Your task to perform on an android device: toggle location history Image 0: 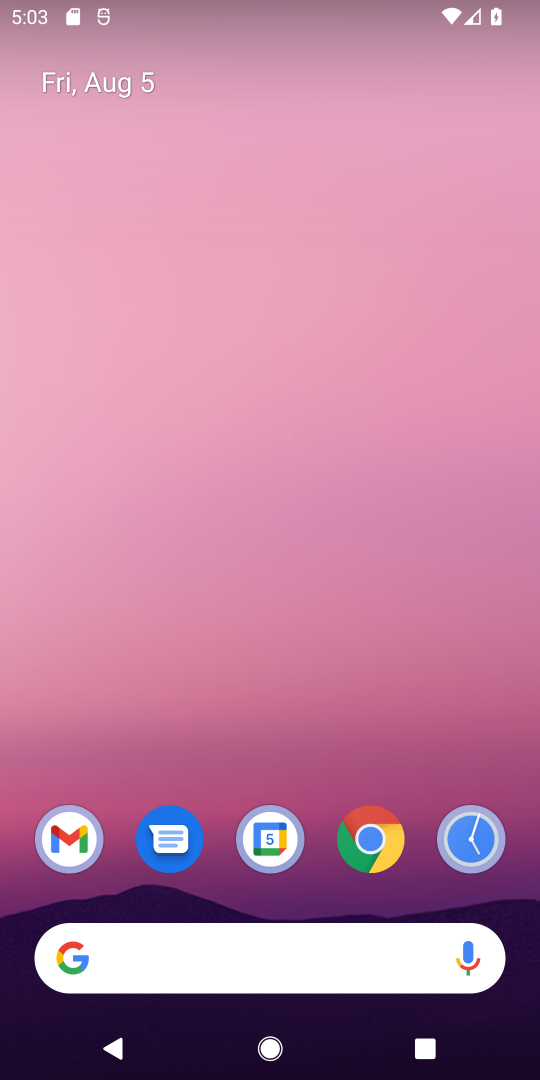
Step 0: drag from (298, 764) to (302, 180)
Your task to perform on an android device: toggle location history Image 1: 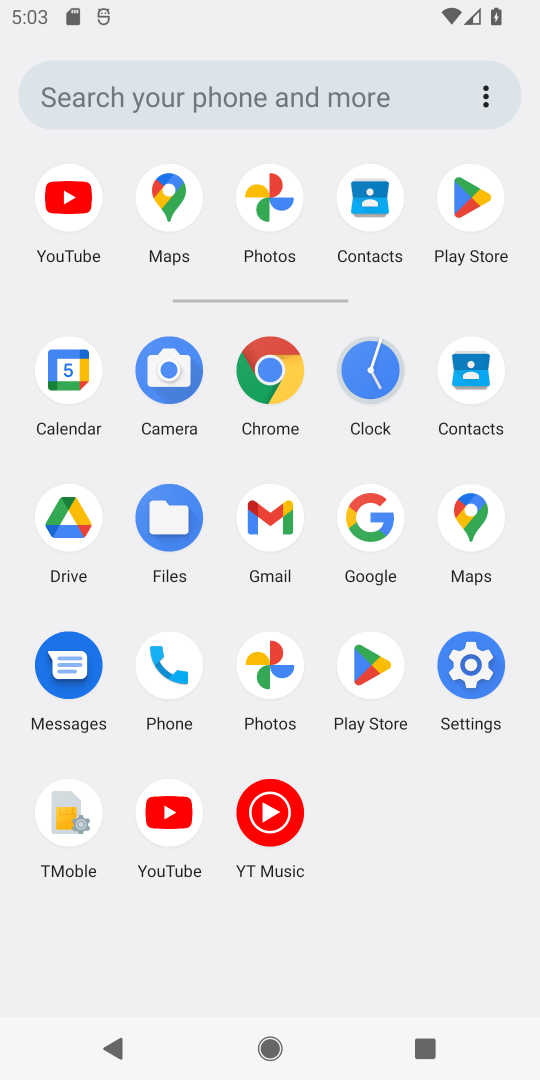
Step 1: click (451, 678)
Your task to perform on an android device: toggle location history Image 2: 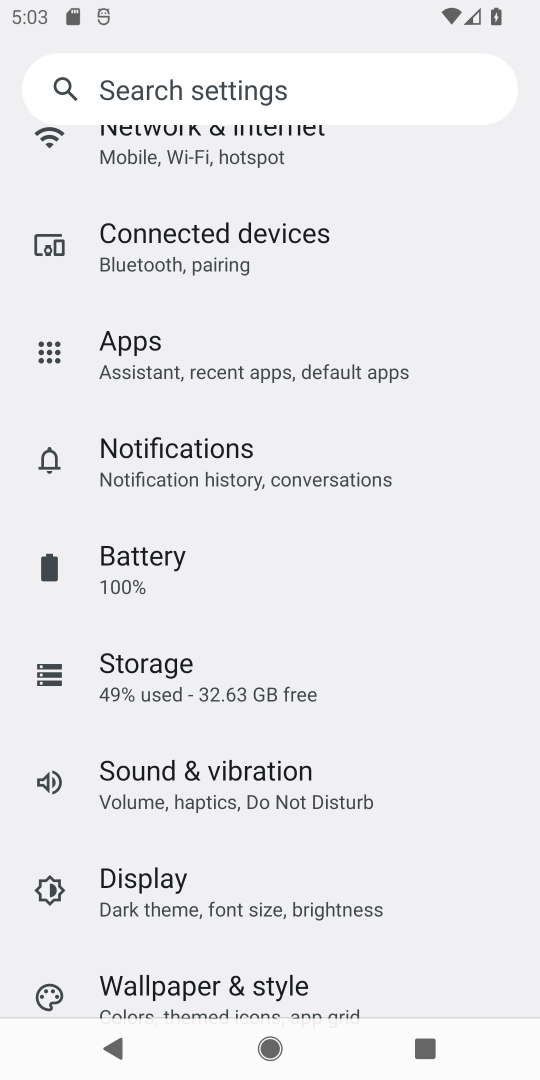
Step 2: drag from (219, 840) to (187, 254)
Your task to perform on an android device: toggle location history Image 3: 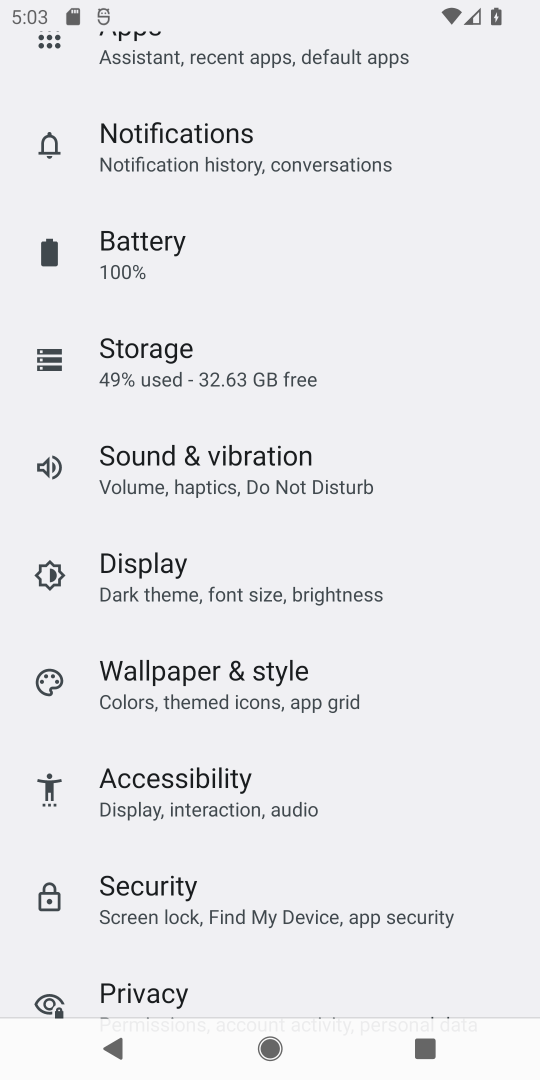
Step 3: drag from (265, 918) to (268, 318)
Your task to perform on an android device: toggle location history Image 4: 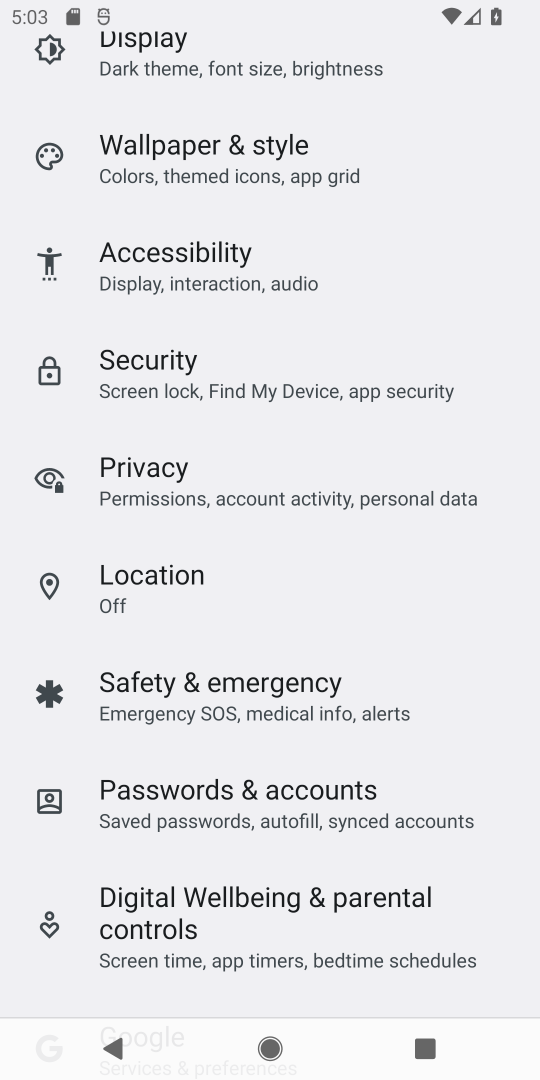
Step 4: click (149, 623)
Your task to perform on an android device: toggle location history Image 5: 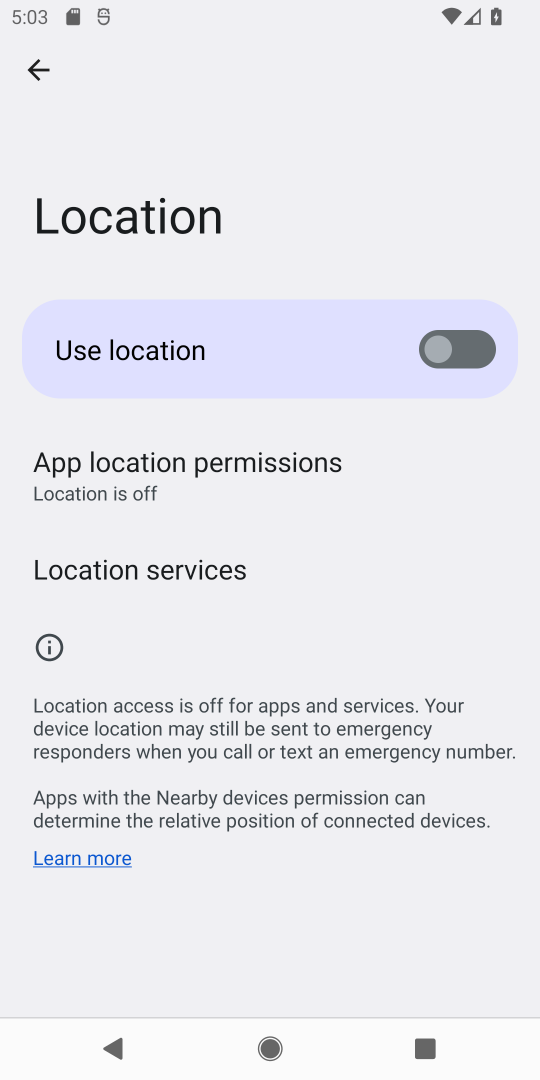
Step 5: drag from (244, 894) to (206, 153)
Your task to perform on an android device: toggle location history Image 6: 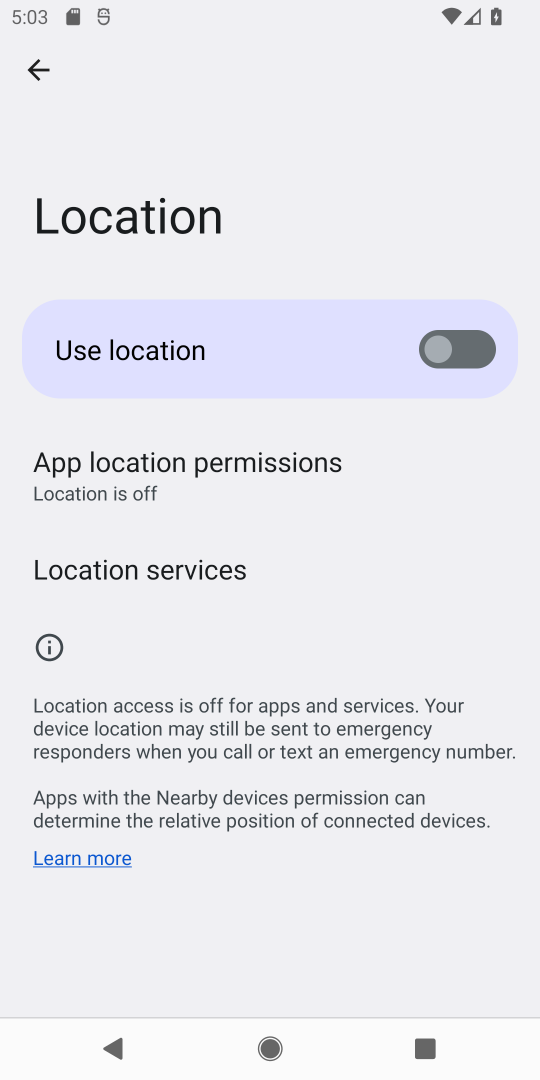
Step 6: drag from (247, 922) to (249, 282)
Your task to perform on an android device: toggle location history Image 7: 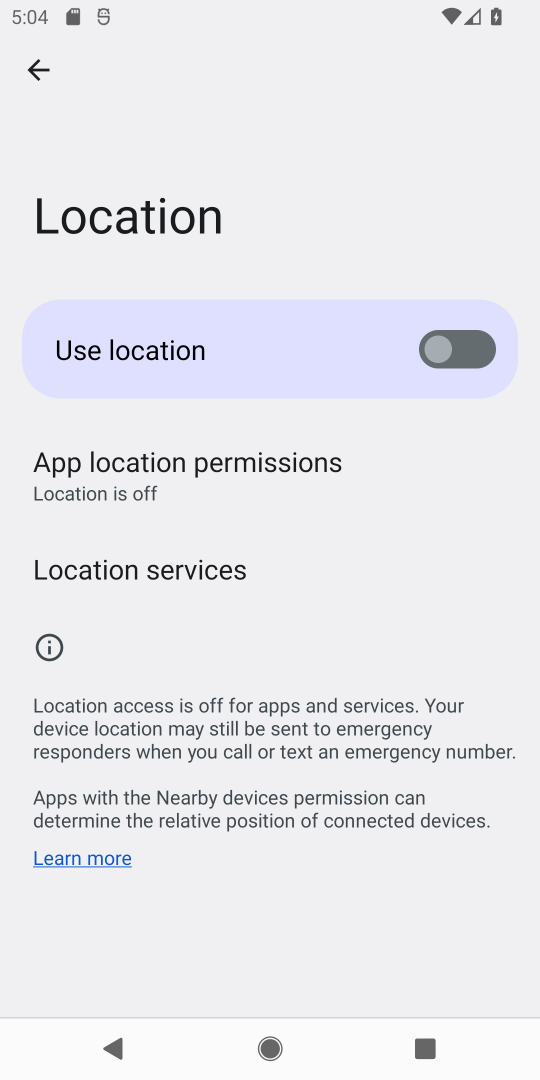
Step 7: click (196, 579)
Your task to perform on an android device: toggle location history Image 8: 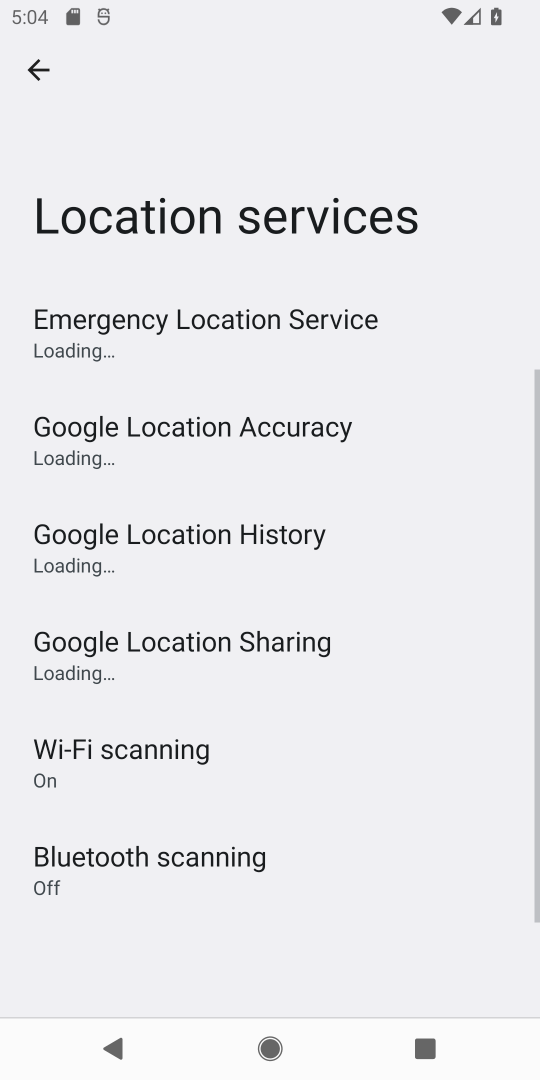
Step 8: click (213, 562)
Your task to perform on an android device: toggle location history Image 9: 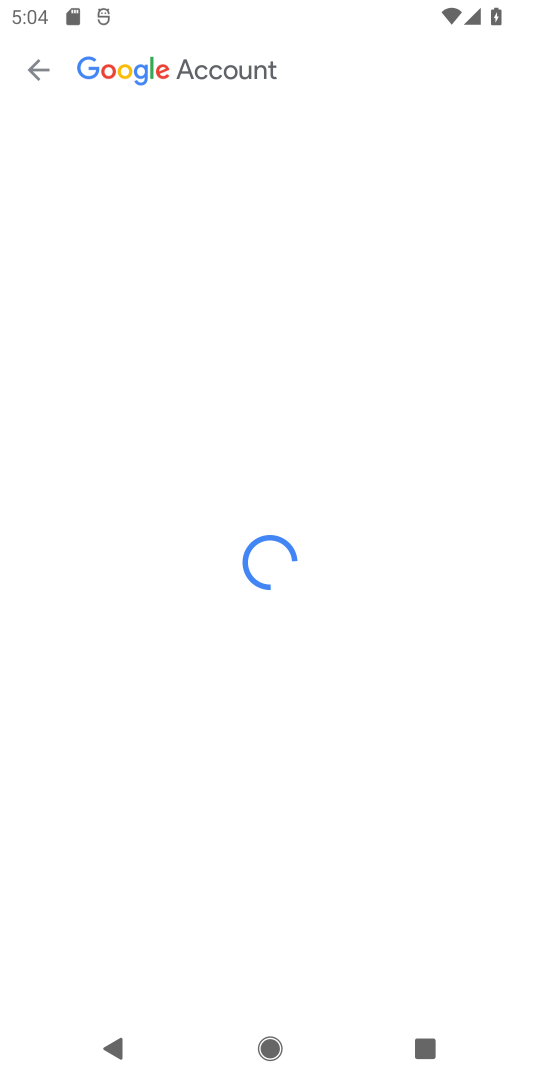
Step 9: task complete